Your task to perform on an android device: set the stopwatch Image 0: 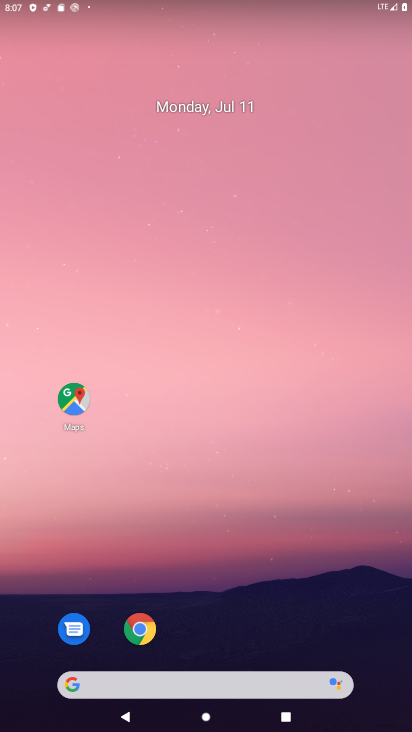
Step 0: drag from (232, 627) to (263, 22)
Your task to perform on an android device: set the stopwatch Image 1: 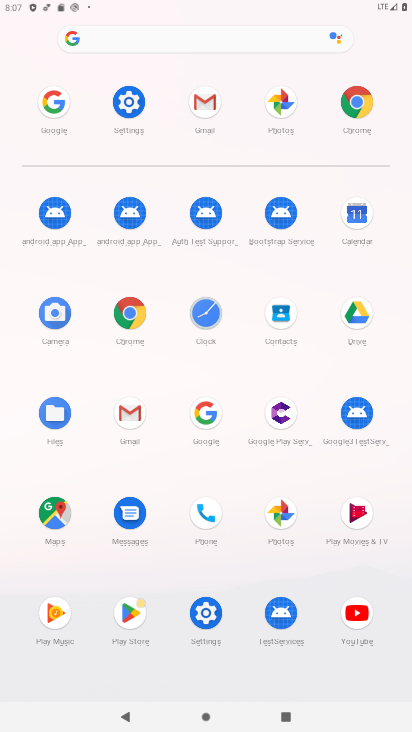
Step 1: click (204, 318)
Your task to perform on an android device: set the stopwatch Image 2: 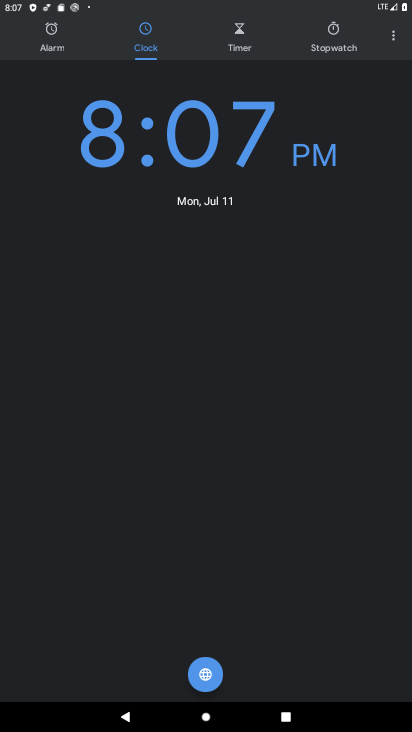
Step 2: click (334, 31)
Your task to perform on an android device: set the stopwatch Image 3: 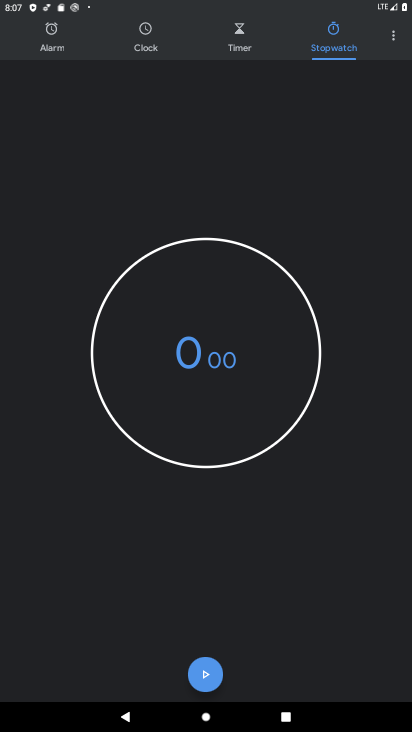
Step 3: click (348, 45)
Your task to perform on an android device: set the stopwatch Image 4: 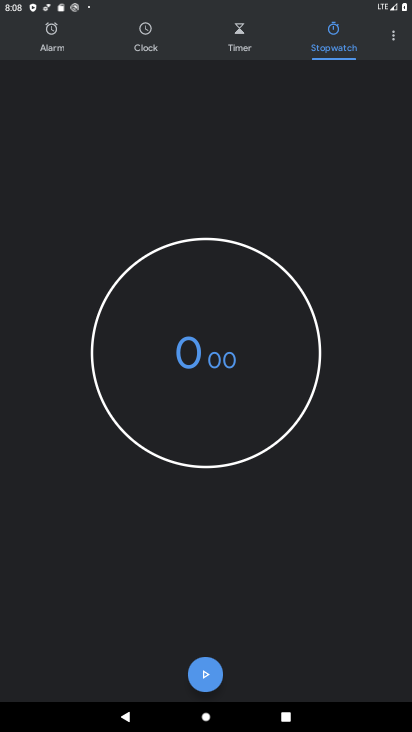
Step 4: task complete